Your task to perform on an android device: What is the recent news? Image 0: 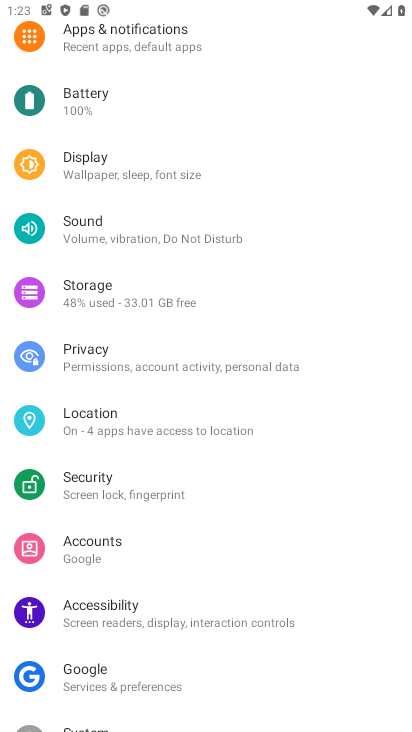
Step 0: press home button
Your task to perform on an android device: What is the recent news? Image 1: 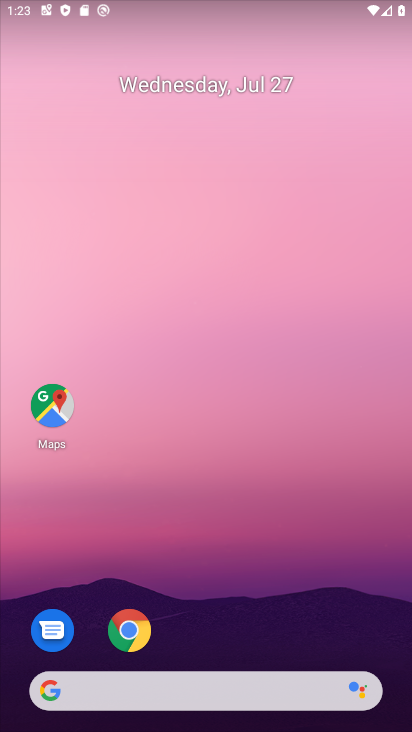
Step 1: drag from (200, 697) to (137, 131)
Your task to perform on an android device: What is the recent news? Image 2: 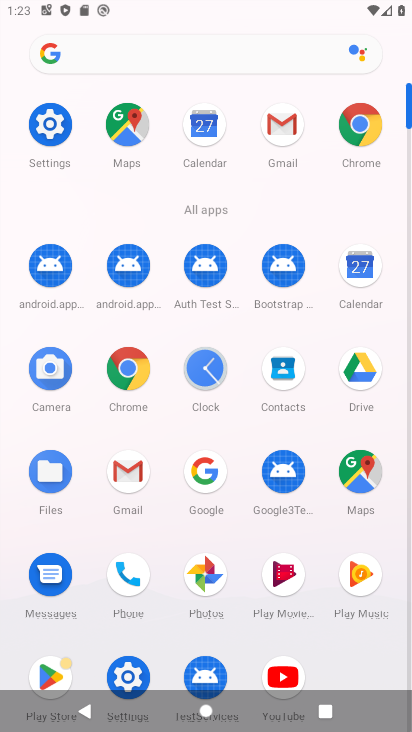
Step 2: click (127, 379)
Your task to perform on an android device: What is the recent news? Image 3: 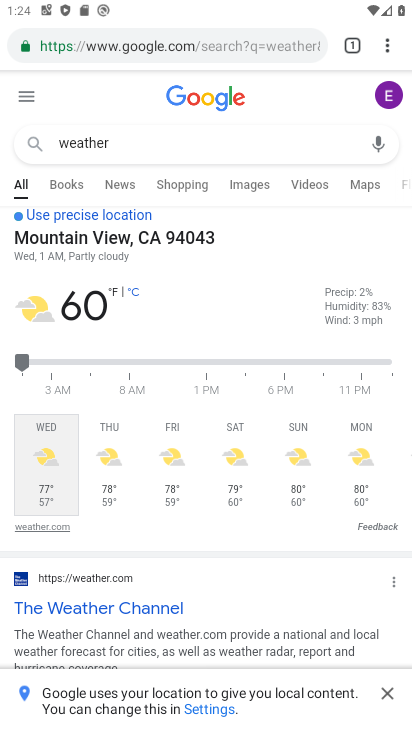
Step 3: click (225, 139)
Your task to perform on an android device: What is the recent news? Image 4: 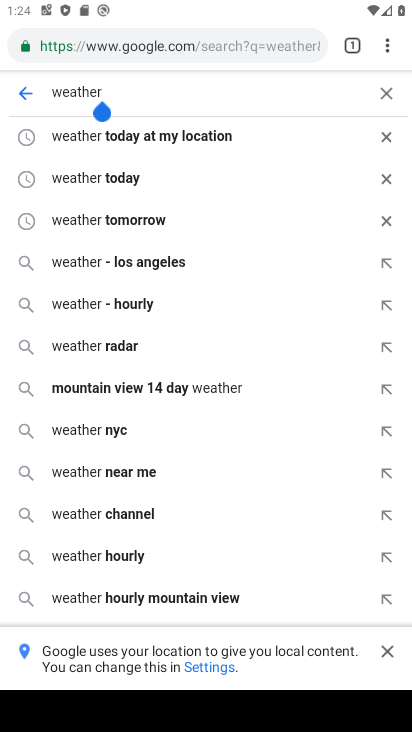
Step 4: click (384, 94)
Your task to perform on an android device: What is the recent news? Image 5: 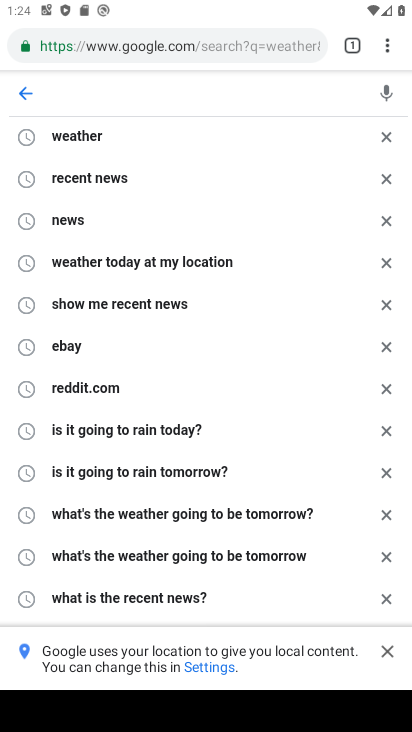
Step 5: click (86, 171)
Your task to perform on an android device: What is the recent news? Image 6: 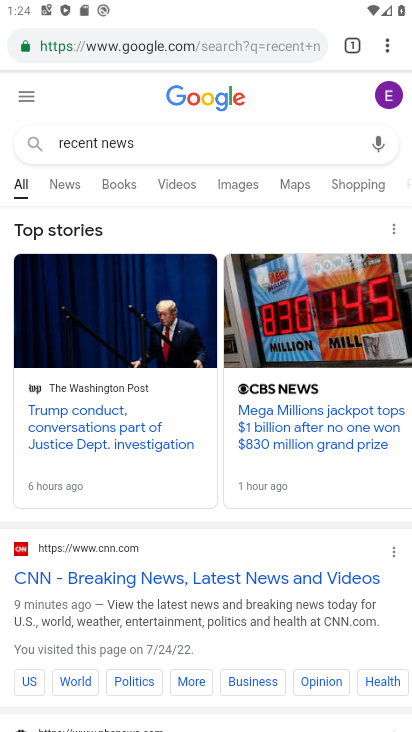
Step 6: task complete